Your task to perform on an android device: turn on the 12-hour format for clock Image 0: 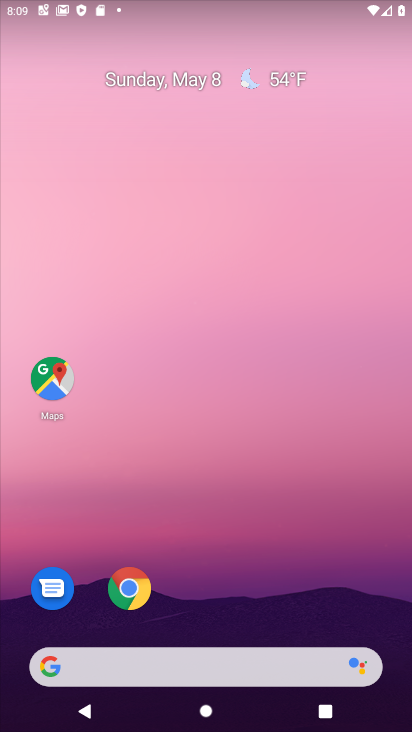
Step 0: drag from (281, 611) to (243, 157)
Your task to perform on an android device: turn on the 12-hour format for clock Image 1: 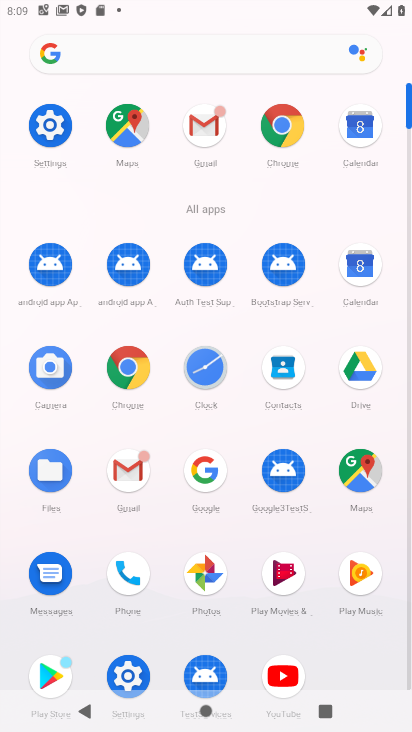
Step 1: click (205, 351)
Your task to perform on an android device: turn on the 12-hour format for clock Image 2: 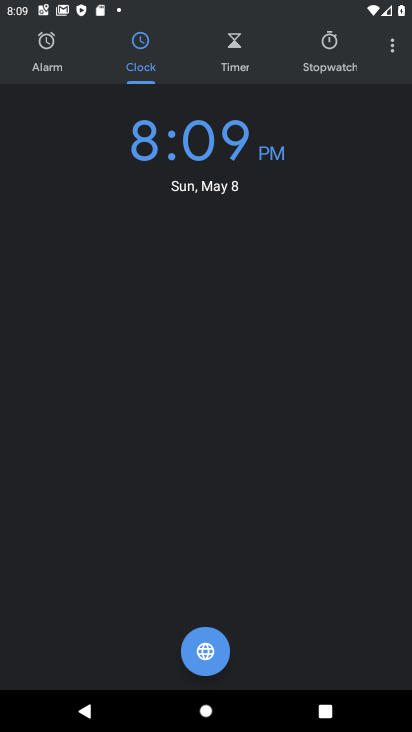
Step 2: click (391, 56)
Your task to perform on an android device: turn on the 12-hour format for clock Image 3: 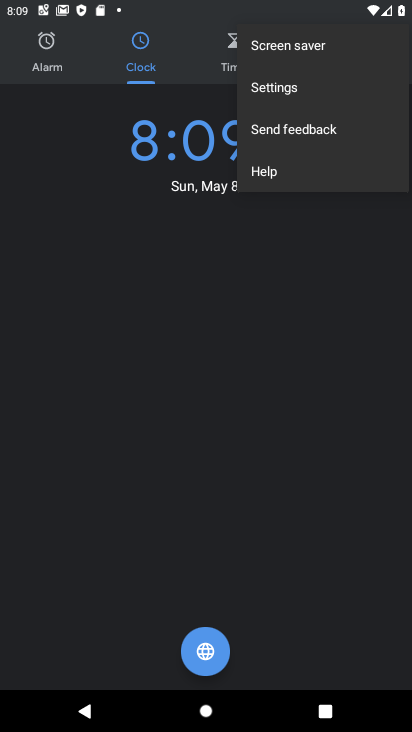
Step 3: click (298, 93)
Your task to perform on an android device: turn on the 12-hour format for clock Image 4: 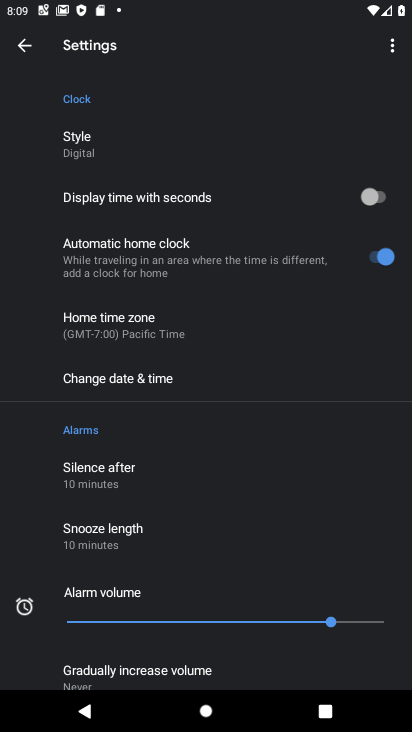
Step 4: click (172, 371)
Your task to perform on an android device: turn on the 12-hour format for clock Image 5: 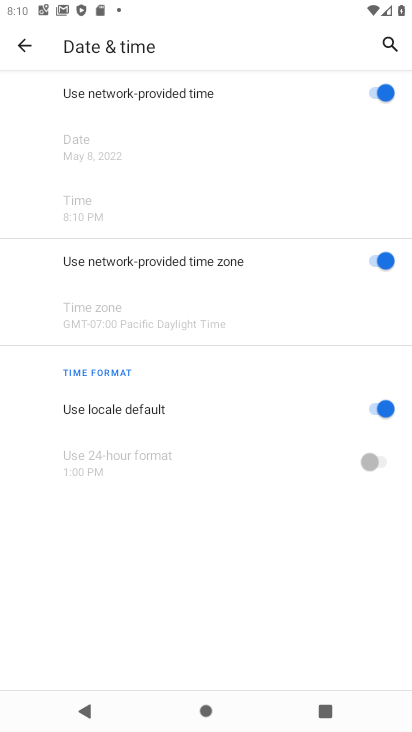
Step 5: task complete